Your task to perform on an android device: open app "Instagram" (install if not already installed) Image 0: 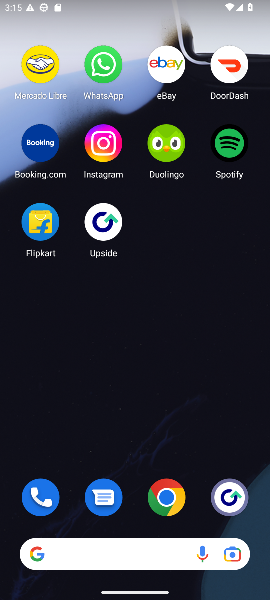
Step 0: drag from (119, 439) to (120, 84)
Your task to perform on an android device: open app "Instagram" (install if not already installed) Image 1: 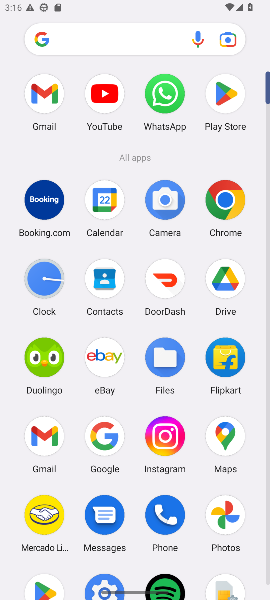
Step 1: click (234, 108)
Your task to perform on an android device: open app "Instagram" (install if not already installed) Image 2: 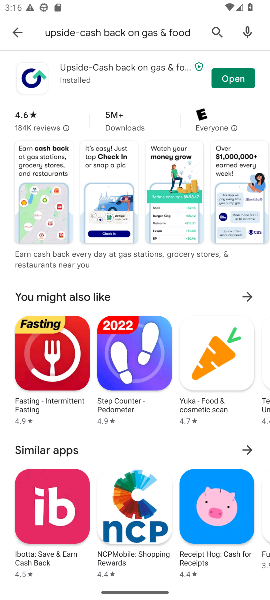
Step 2: click (218, 26)
Your task to perform on an android device: open app "Instagram" (install if not already installed) Image 3: 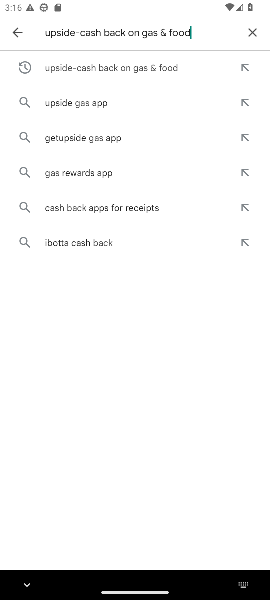
Step 3: click (254, 35)
Your task to perform on an android device: open app "Instagram" (install if not already installed) Image 4: 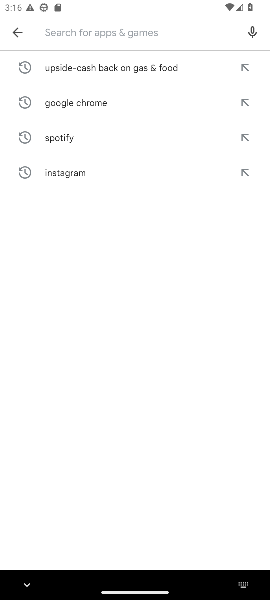
Step 4: type "Instagram"
Your task to perform on an android device: open app "Instagram" (install if not already installed) Image 5: 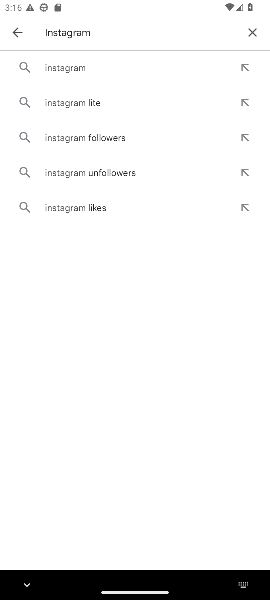
Step 5: click (73, 64)
Your task to perform on an android device: open app "Instagram" (install if not already installed) Image 6: 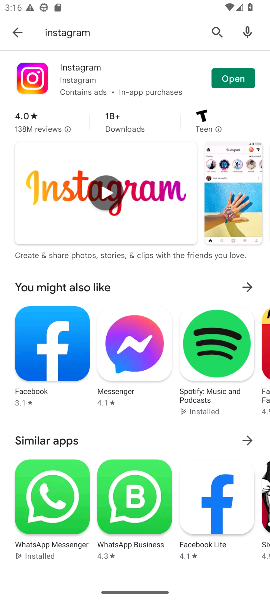
Step 6: click (232, 77)
Your task to perform on an android device: open app "Instagram" (install if not already installed) Image 7: 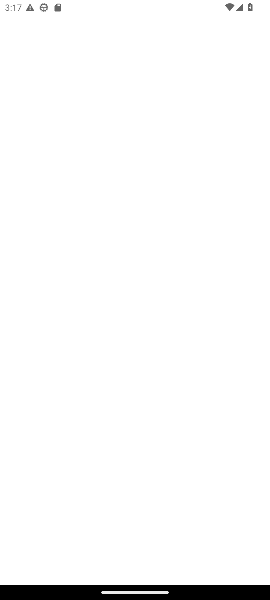
Step 7: task complete